Your task to perform on an android device: turn off picture-in-picture Image 0: 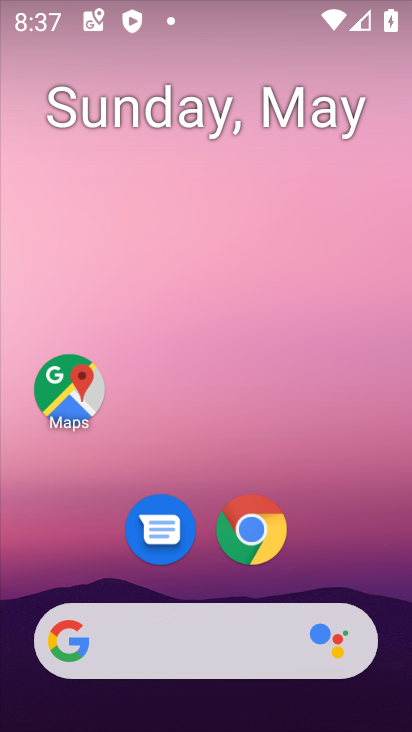
Step 0: click (252, 535)
Your task to perform on an android device: turn off picture-in-picture Image 1: 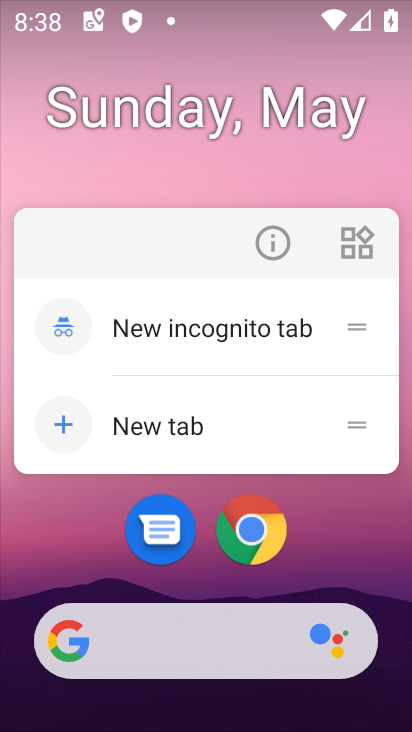
Step 1: click (269, 240)
Your task to perform on an android device: turn off picture-in-picture Image 2: 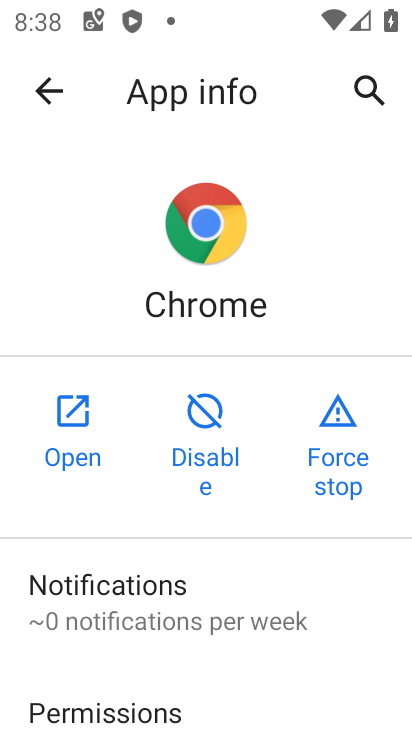
Step 2: drag from (344, 667) to (356, 78)
Your task to perform on an android device: turn off picture-in-picture Image 3: 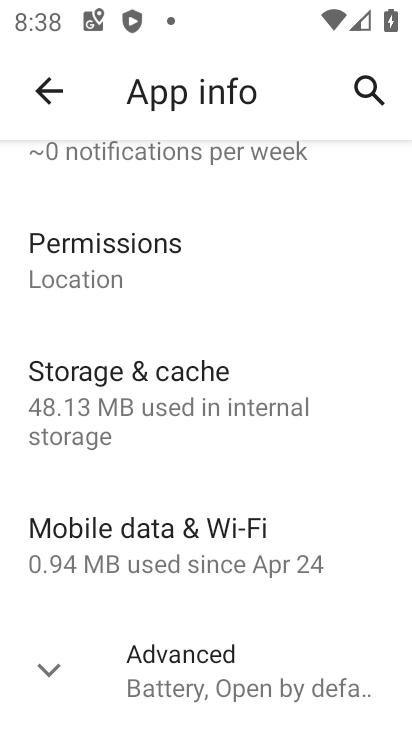
Step 3: drag from (286, 582) to (283, 130)
Your task to perform on an android device: turn off picture-in-picture Image 4: 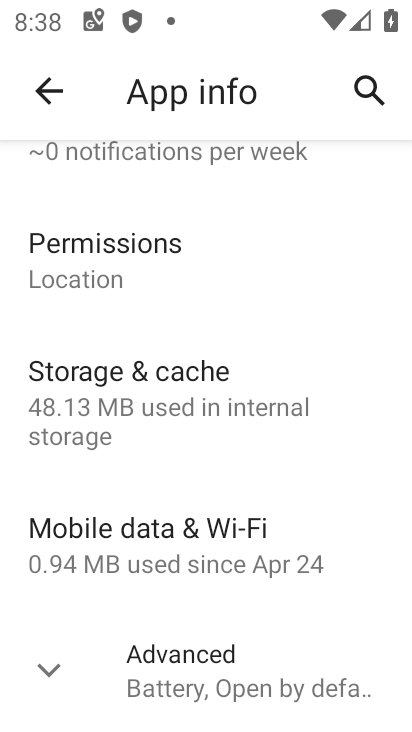
Step 4: click (49, 680)
Your task to perform on an android device: turn off picture-in-picture Image 5: 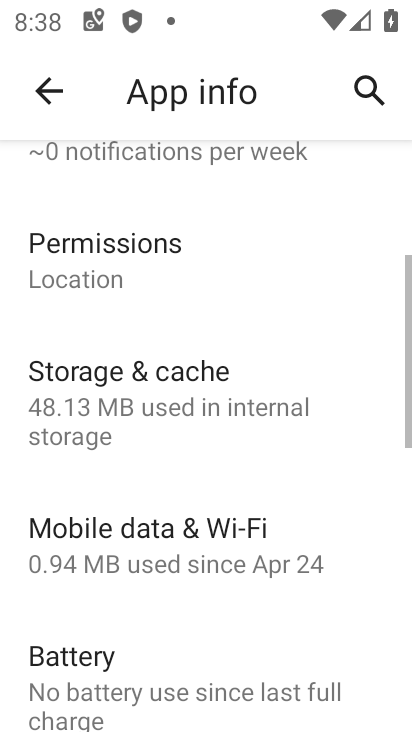
Step 5: drag from (226, 683) to (274, 5)
Your task to perform on an android device: turn off picture-in-picture Image 6: 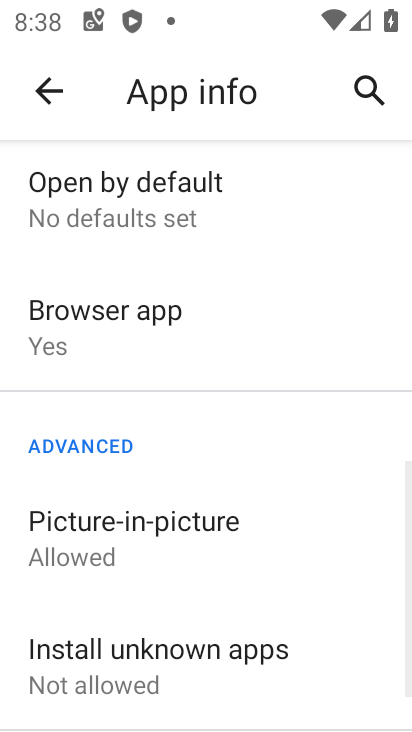
Step 6: click (93, 518)
Your task to perform on an android device: turn off picture-in-picture Image 7: 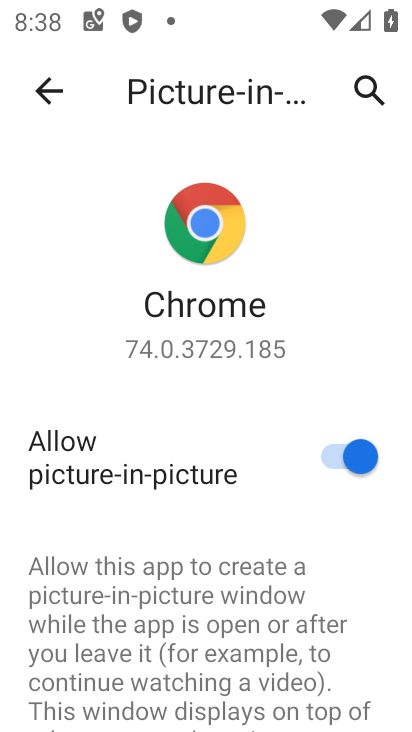
Step 7: click (343, 450)
Your task to perform on an android device: turn off picture-in-picture Image 8: 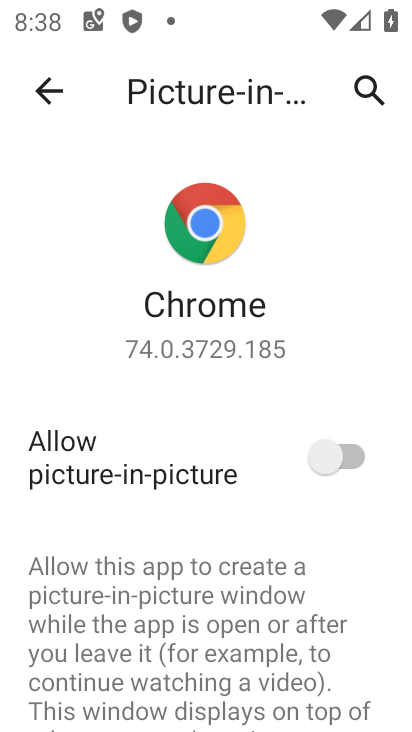
Step 8: task complete